Your task to perform on an android device: open the mobile data screen to see how much data has been used Image 0: 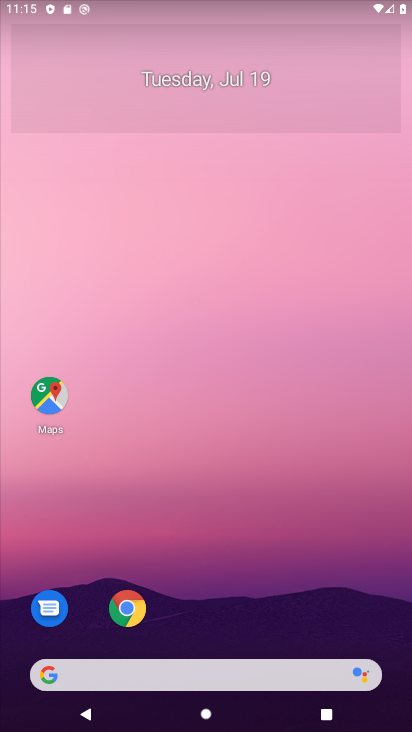
Step 0: press home button
Your task to perform on an android device: open the mobile data screen to see how much data has been used Image 1: 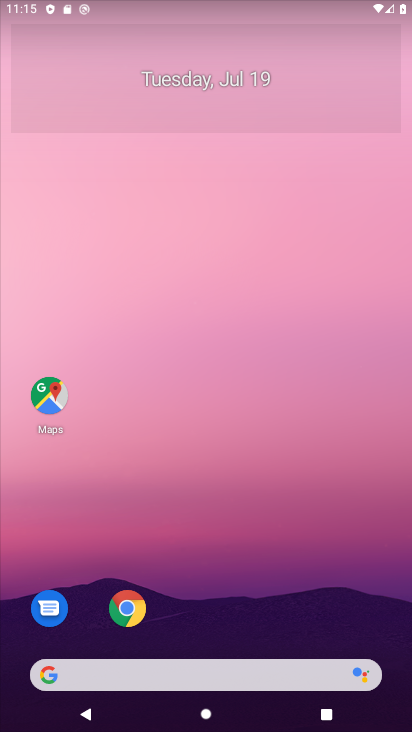
Step 1: drag from (265, 558) to (366, 0)
Your task to perform on an android device: open the mobile data screen to see how much data has been used Image 2: 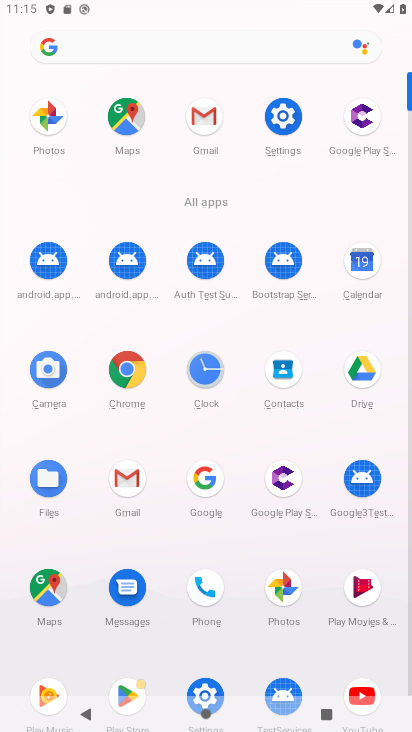
Step 2: click (288, 128)
Your task to perform on an android device: open the mobile data screen to see how much data has been used Image 3: 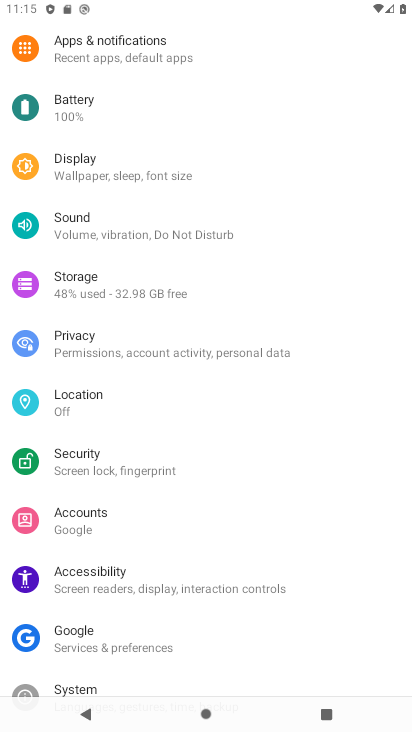
Step 3: drag from (158, 79) to (134, 510)
Your task to perform on an android device: open the mobile data screen to see how much data has been used Image 4: 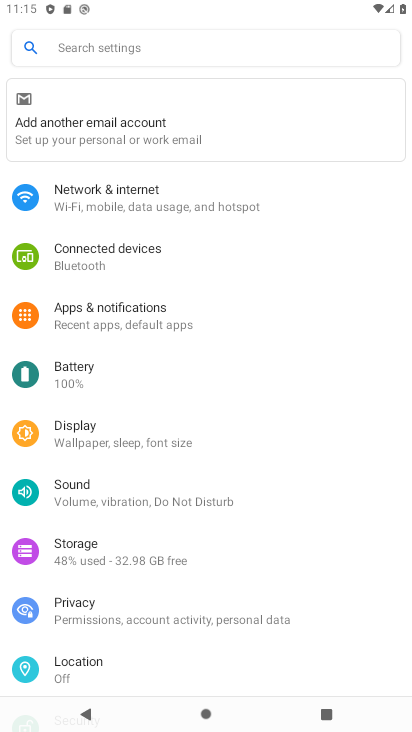
Step 4: click (161, 207)
Your task to perform on an android device: open the mobile data screen to see how much data has been used Image 5: 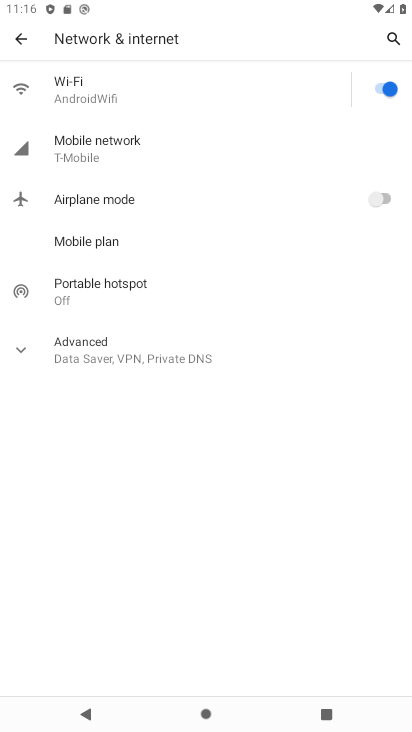
Step 5: click (83, 141)
Your task to perform on an android device: open the mobile data screen to see how much data has been used Image 6: 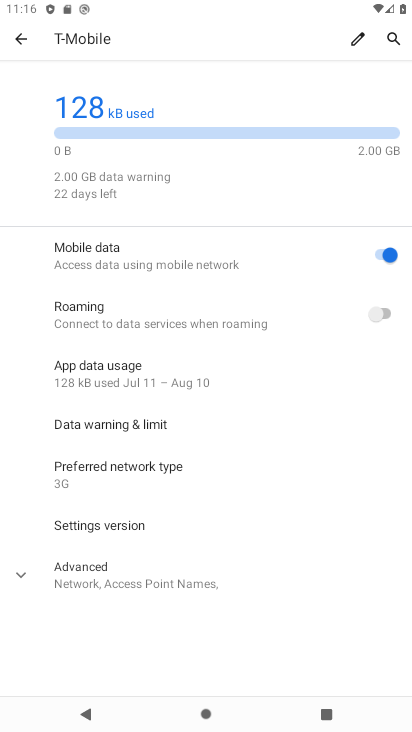
Step 6: task complete